Your task to perform on an android device: Go to Google maps Image 0: 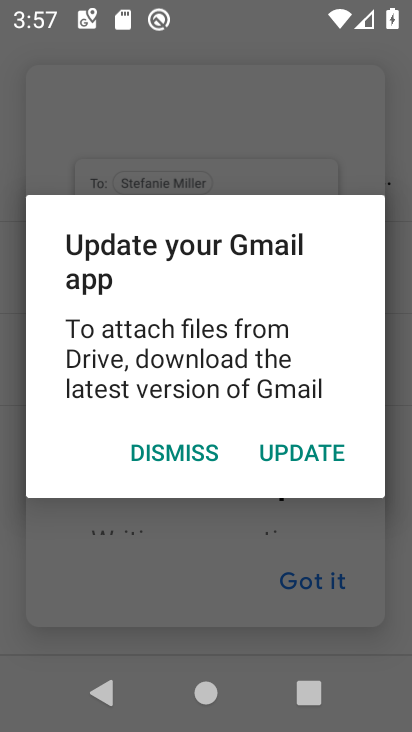
Step 0: press home button
Your task to perform on an android device: Go to Google maps Image 1: 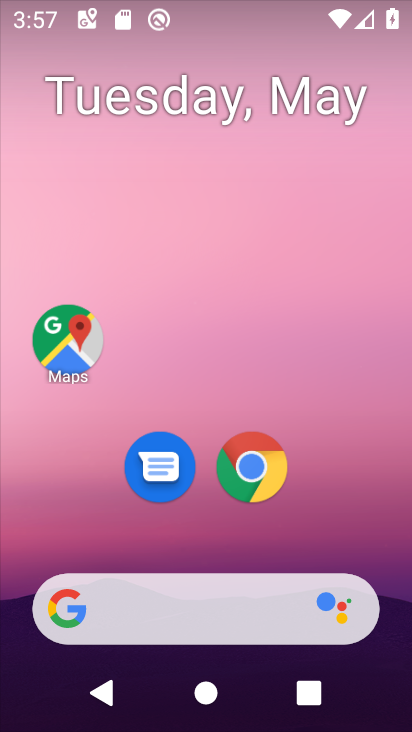
Step 1: click (67, 344)
Your task to perform on an android device: Go to Google maps Image 2: 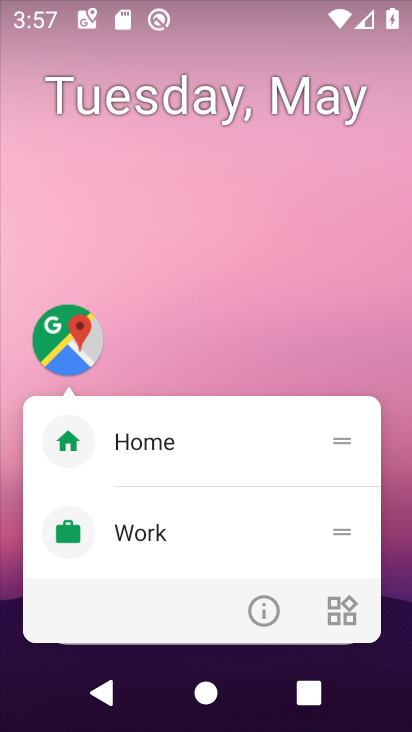
Step 2: click (61, 339)
Your task to perform on an android device: Go to Google maps Image 3: 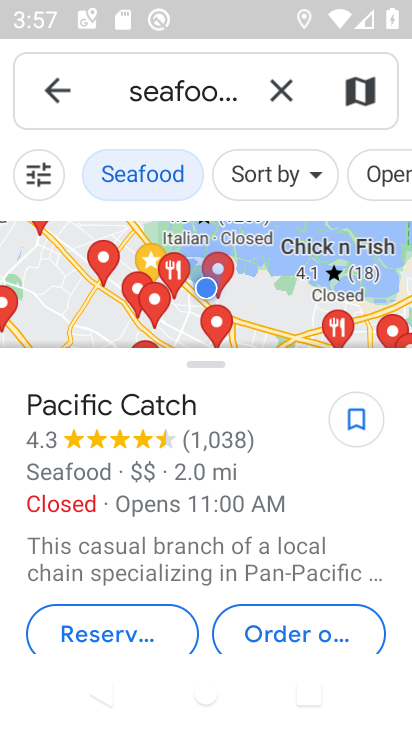
Step 3: task complete